Your task to perform on an android device: change keyboard looks Image 0: 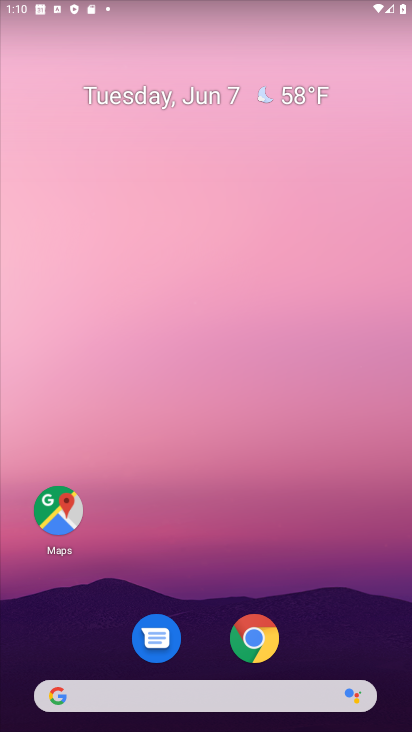
Step 0: drag from (227, 587) to (332, 17)
Your task to perform on an android device: change keyboard looks Image 1: 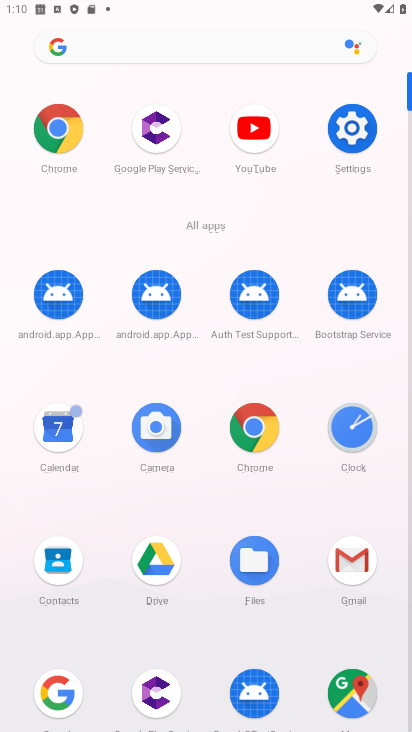
Step 1: click (348, 132)
Your task to perform on an android device: change keyboard looks Image 2: 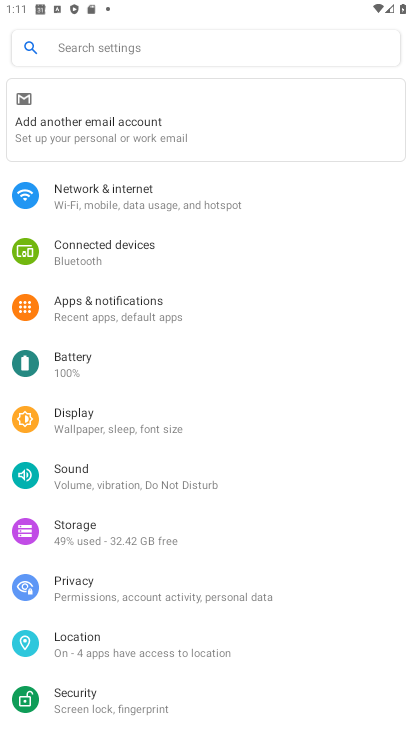
Step 2: drag from (232, 670) to (295, 204)
Your task to perform on an android device: change keyboard looks Image 3: 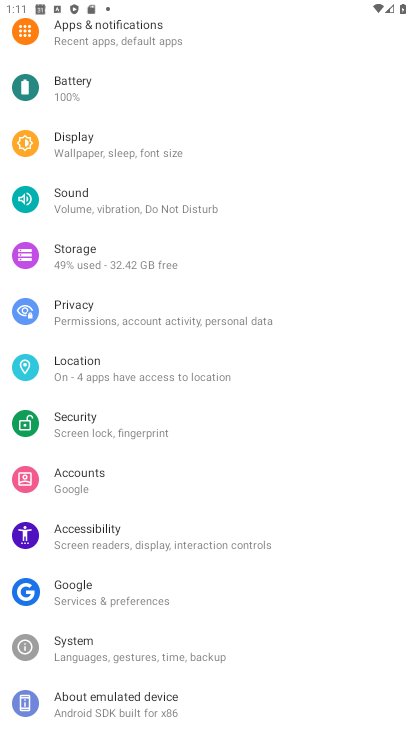
Step 3: click (123, 644)
Your task to perform on an android device: change keyboard looks Image 4: 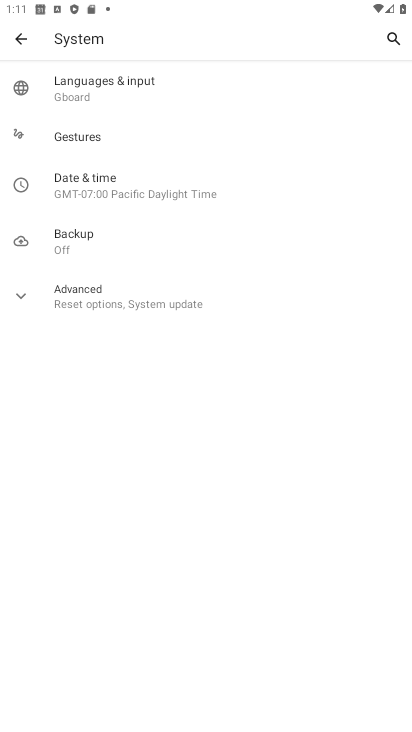
Step 4: click (96, 101)
Your task to perform on an android device: change keyboard looks Image 5: 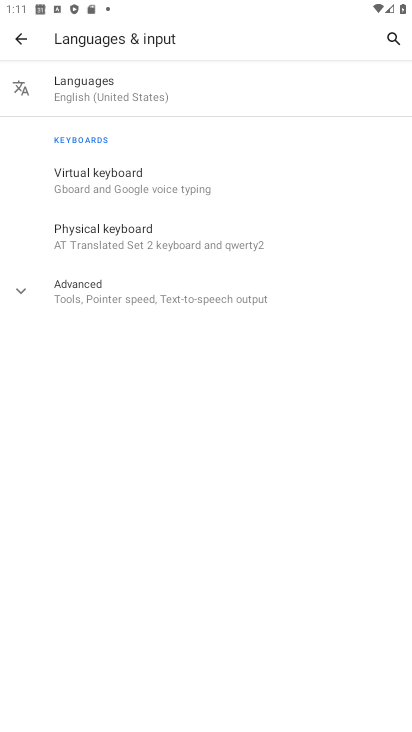
Step 5: click (137, 179)
Your task to perform on an android device: change keyboard looks Image 6: 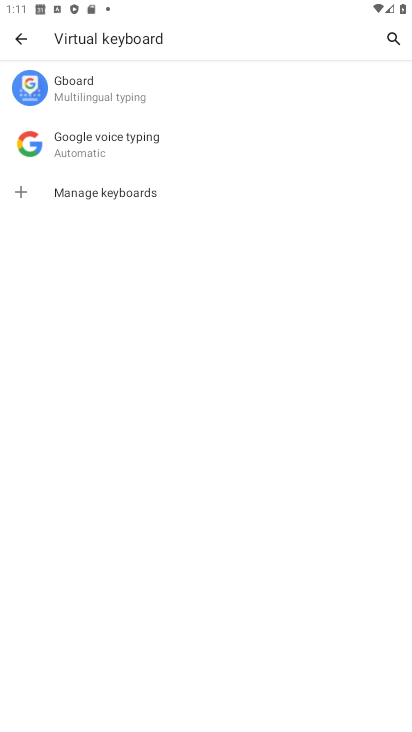
Step 6: task complete